Your task to perform on an android device: Open accessibility settings Image 0: 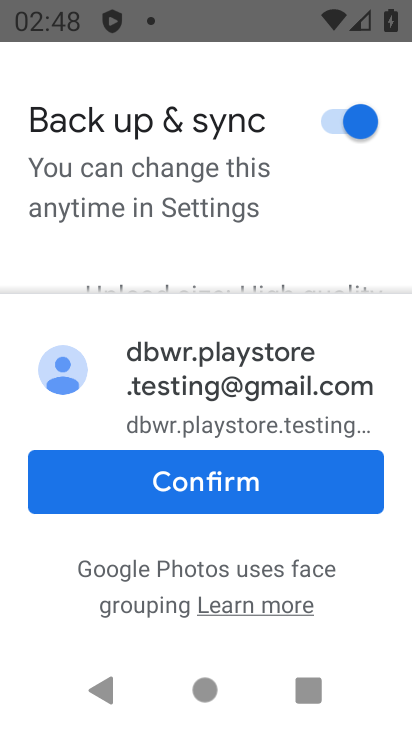
Step 0: press home button
Your task to perform on an android device: Open accessibility settings Image 1: 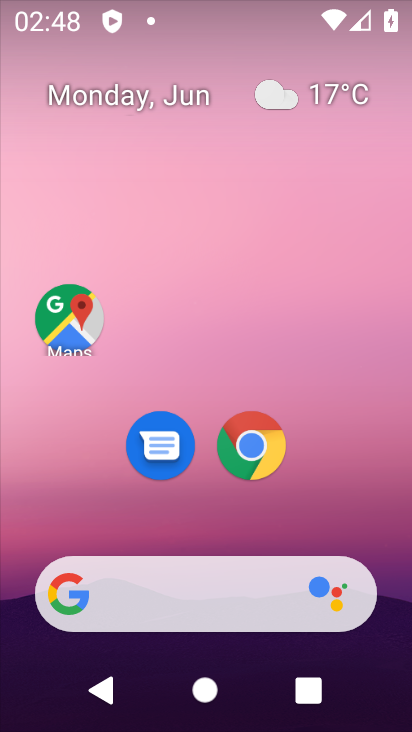
Step 1: drag from (104, 669) to (287, 128)
Your task to perform on an android device: Open accessibility settings Image 2: 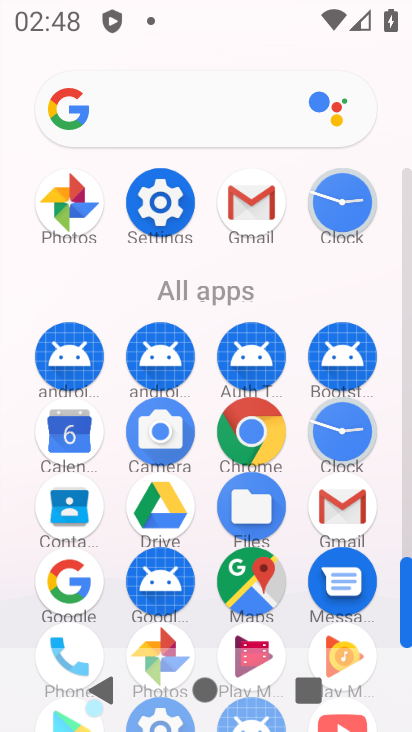
Step 2: drag from (195, 624) to (312, 280)
Your task to perform on an android device: Open accessibility settings Image 3: 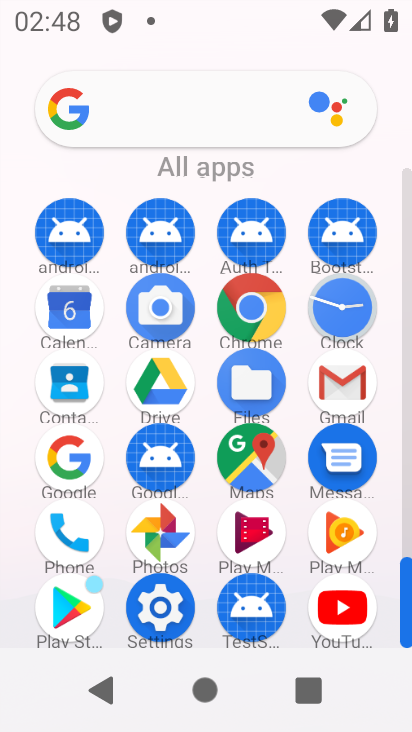
Step 3: click (182, 622)
Your task to perform on an android device: Open accessibility settings Image 4: 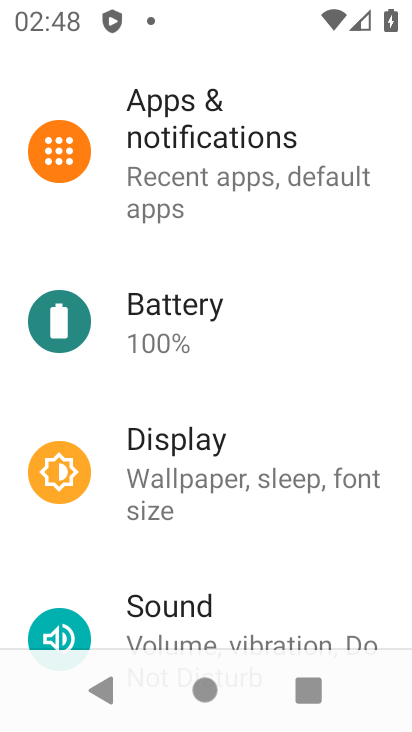
Step 4: drag from (215, 576) to (363, 66)
Your task to perform on an android device: Open accessibility settings Image 5: 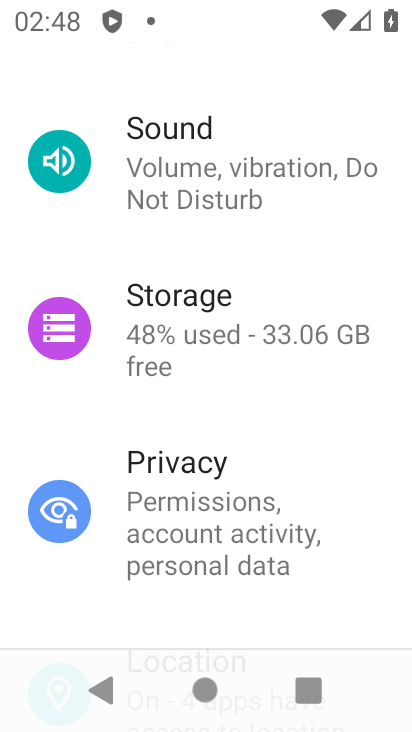
Step 5: drag from (273, 573) to (399, 167)
Your task to perform on an android device: Open accessibility settings Image 6: 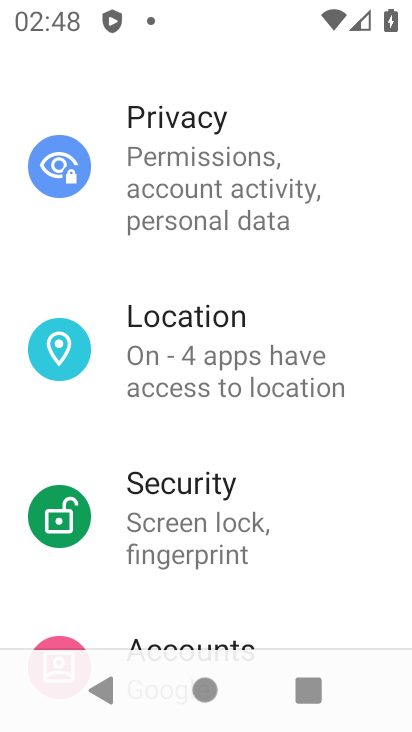
Step 6: drag from (208, 455) to (350, 74)
Your task to perform on an android device: Open accessibility settings Image 7: 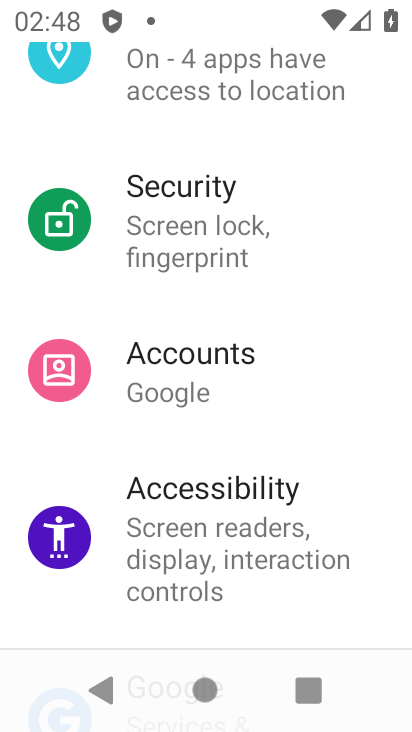
Step 7: click (256, 502)
Your task to perform on an android device: Open accessibility settings Image 8: 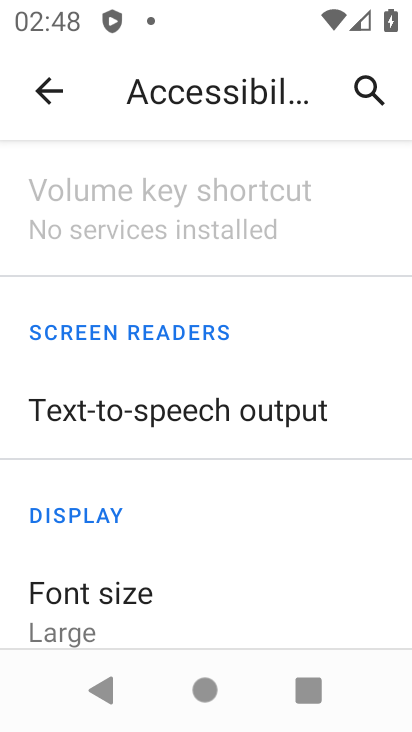
Step 8: task complete